Your task to perform on an android device: turn off notifications settings in the gmail app Image 0: 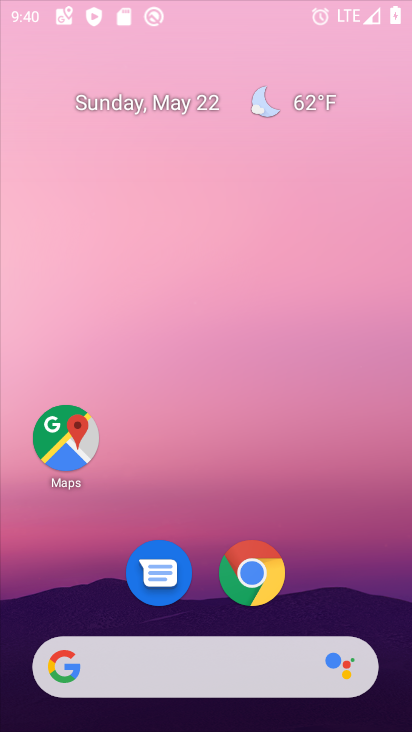
Step 0: drag from (307, 529) to (242, 1)
Your task to perform on an android device: turn off notifications settings in the gmail app Image 1: 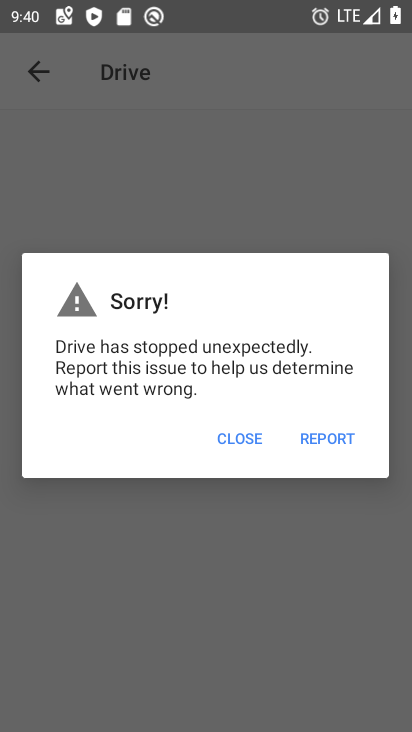
Step 1: press home button
Your task to perform on an android device: turn off notifications settings in the gmail app Image 2: 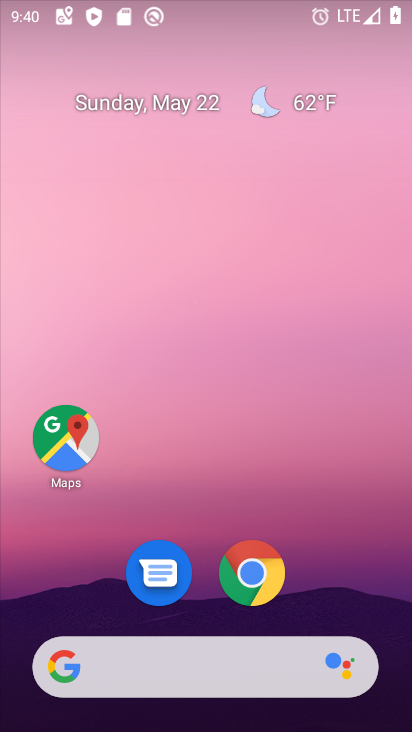
Step 2: drag from (234, 629) to (160, 14)
Your task to perform on an android device: turn off notifications settings in the gmail app Image 3: 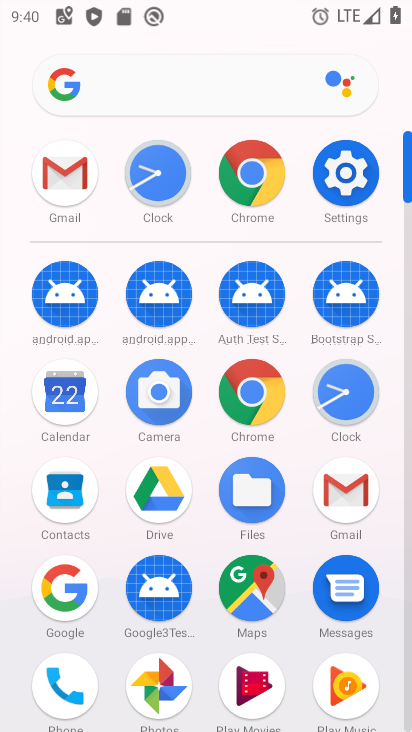
Step 3: click (354, 492)
Your task to perform on an android device: turn off notifications settings in the gmail app Image 4: 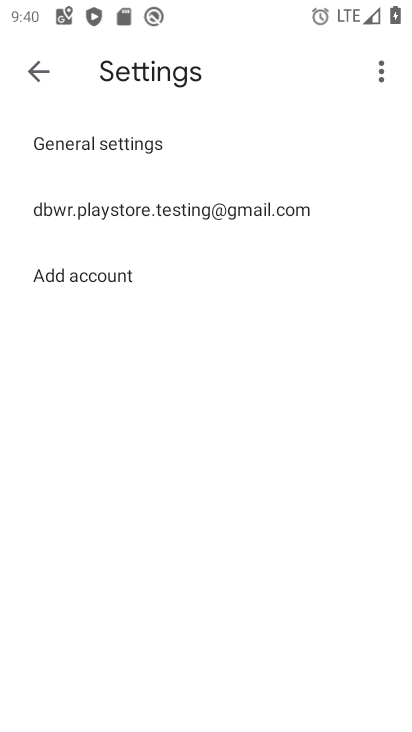
Step 4: click (203, 187)
Your task to perform on an android device: turn off notifications settings in the gmail app Image 5: 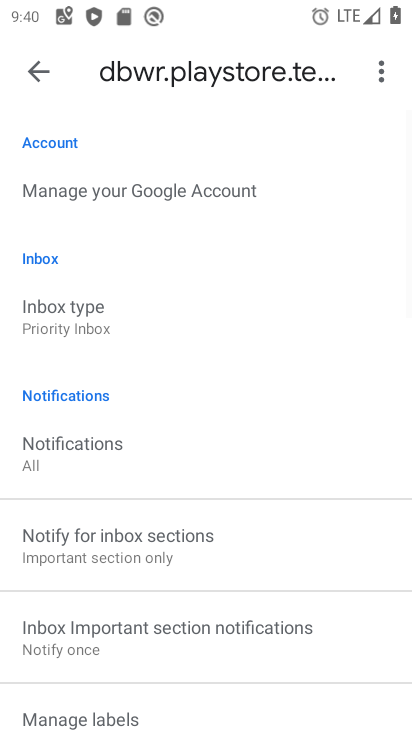
Step 5: drag from (248, 617) to (187, 280)
Your task to perform on an android device: turn off notifications settings in the gmail app Image 6: 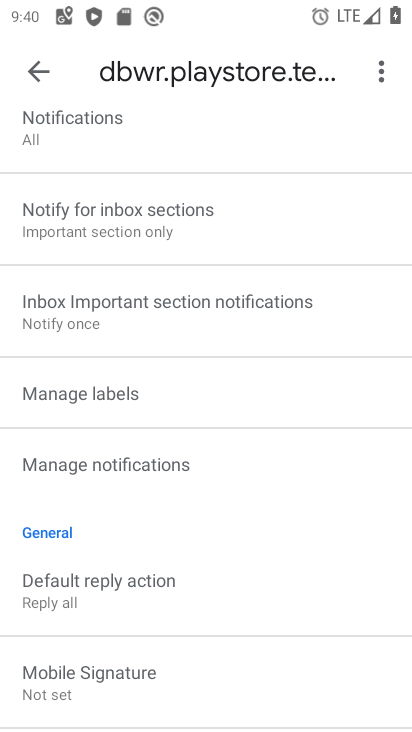
Step 6: click (210, 470)
Your task to perform on an android device: turn off notifications settings in the gmail app Image 7: 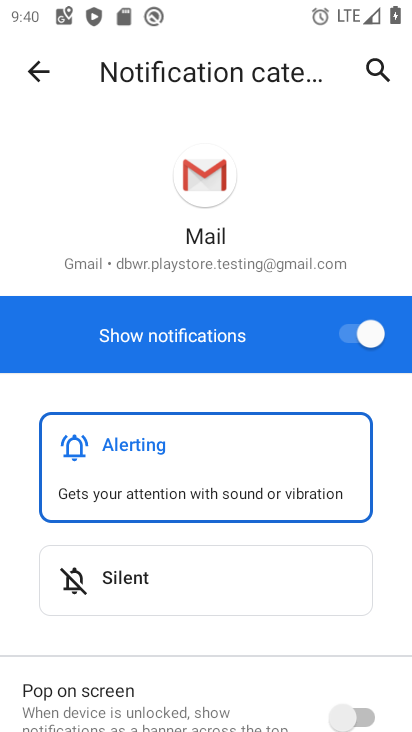
Step 7: click (370, 332)
Your task to perform on an android device: turn off notifications settings in the gmail app Image 8: 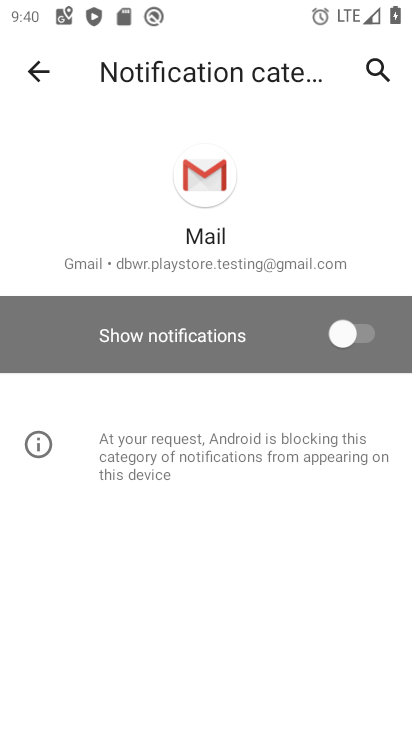
Step 8: task complete